Your task to perform on an android device: Open Google Maps and go to "Timeline" Image 0: 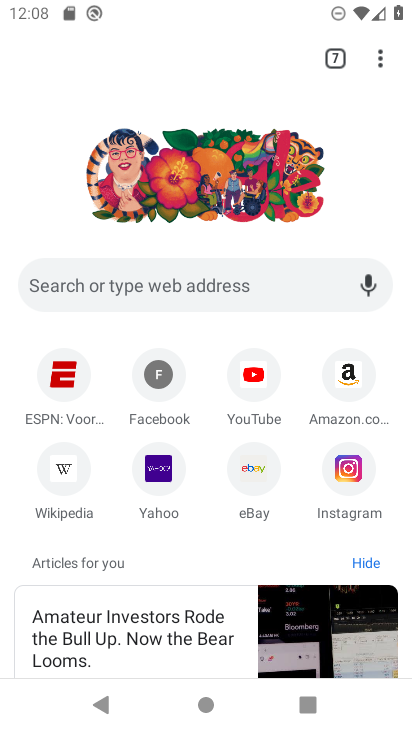
Step 0: press home button
Your task to perform on an android device: Open Google Maps and go to "Timeline" Image 1: 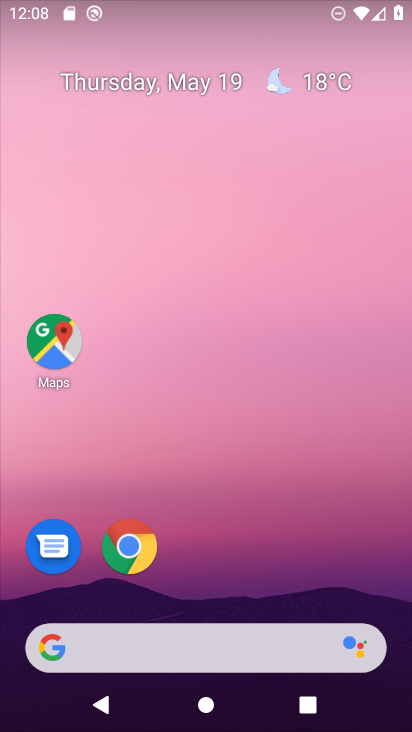
Step 1: drag from (223, 719) to (233, 177)
Your task to perform on an android device: Open Google Maps and go to "Timeline" Image 2: 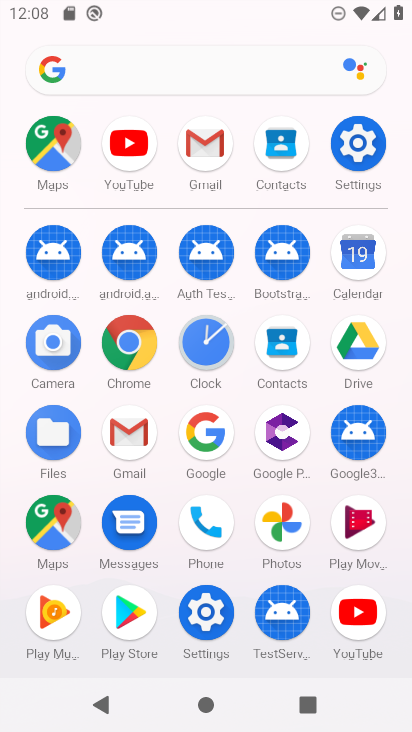
Step 2: click (50, 524)
Your task to perform on an android device: Open Google Maps and go to "Timeline" Image 3: 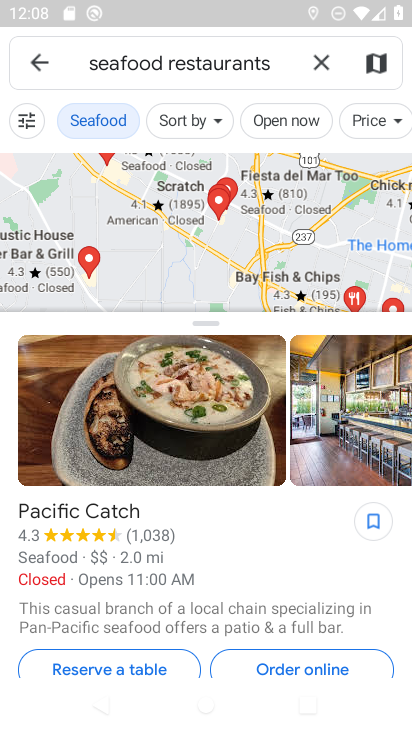
Step 3: click (41, 58)
Your task to perform on an android device: Open Google Maps and go to "Timeline" Image 4: 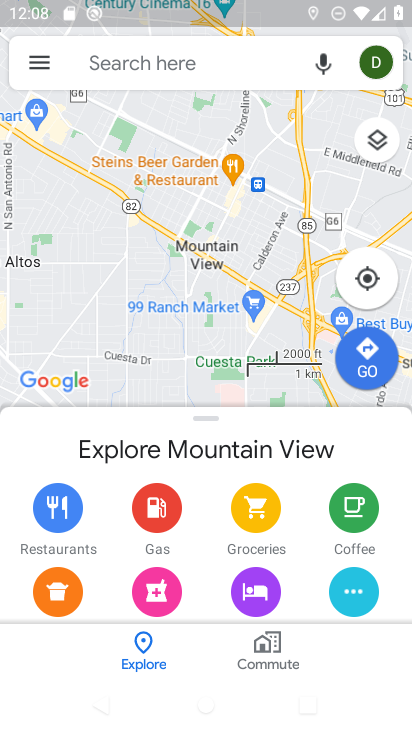
Step 4: click (37, 55)
Your task to perform on an android device: Open Google Maps and go to "Timeline" Image 5: 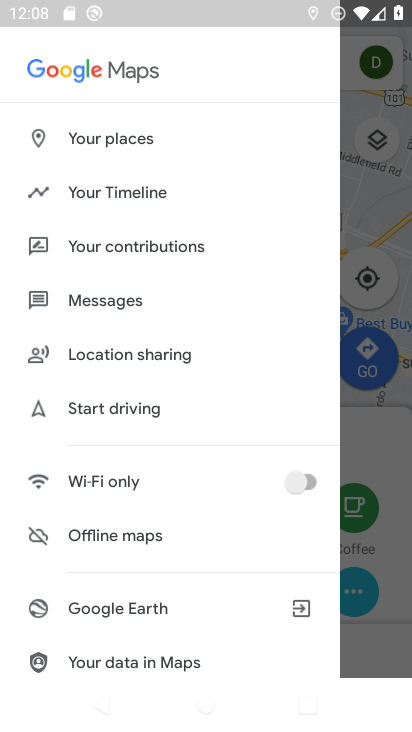
Step 5: click (132, 188)
Your task to perform on an android device: Open Google Maps and go to "Timeline" Image 6: 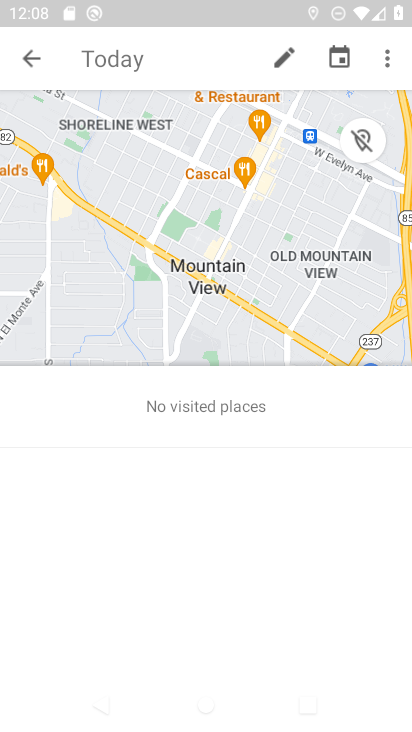
Step 6: task complete